Your task to perform on an android device: turn off priority inbox in the gmail app Image 0: 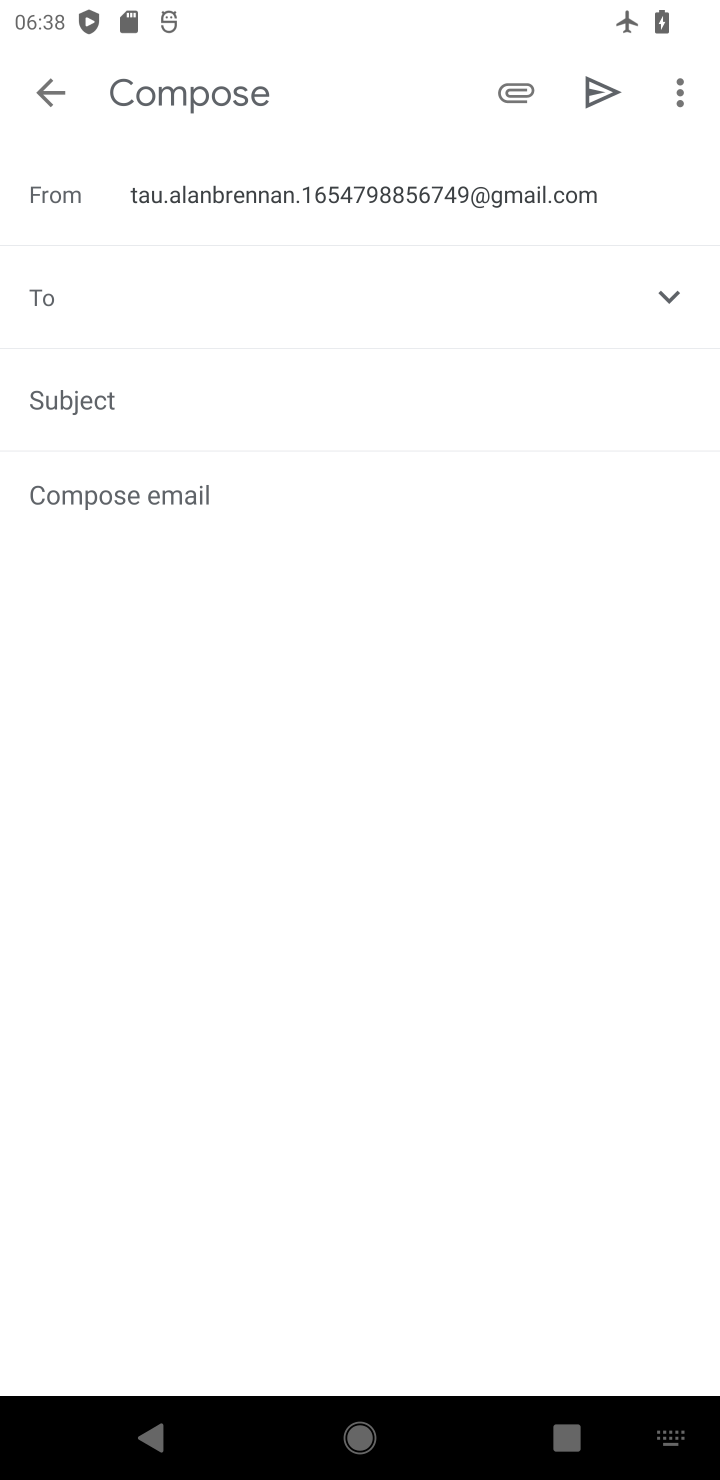
Step 0: click (52, 93)
Your task to perform on an android device: turn off priority inbox in the gmail app Image 1: 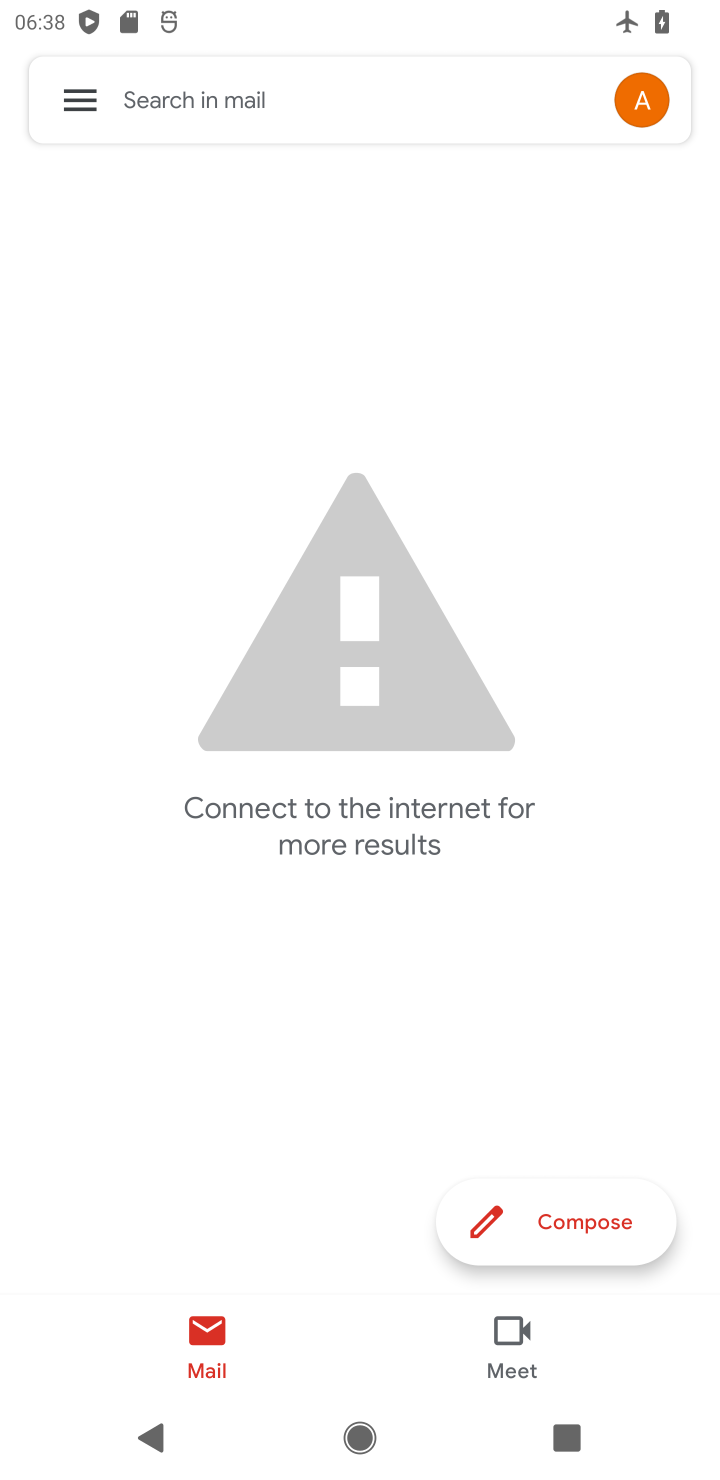
Step 1: press home button
Your task to perform on an android device: turn off priority inbox in the gmail app Image 2: 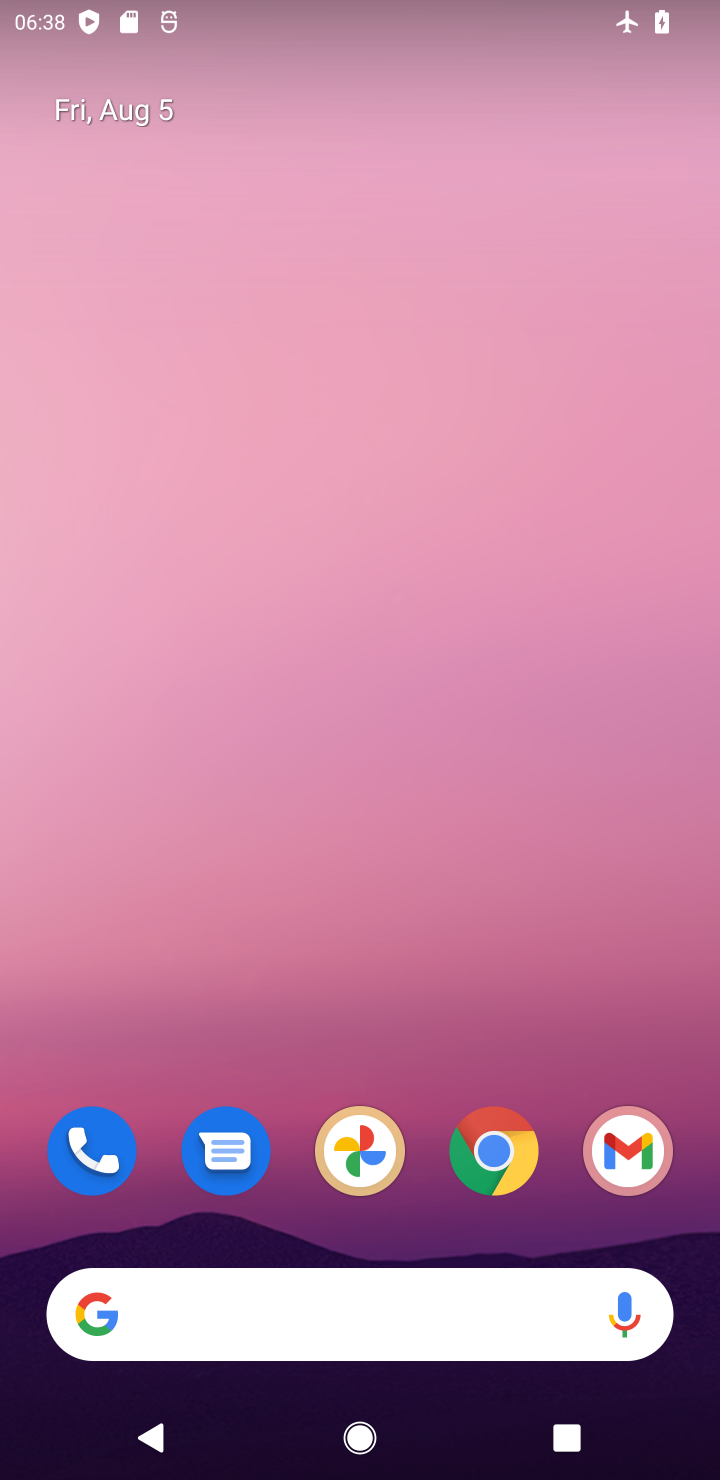
Step 2: drag from (338, 1237) to (223, 152)
Your task to perform on an android device: turn off priority inbox in the gmail app Image 3: 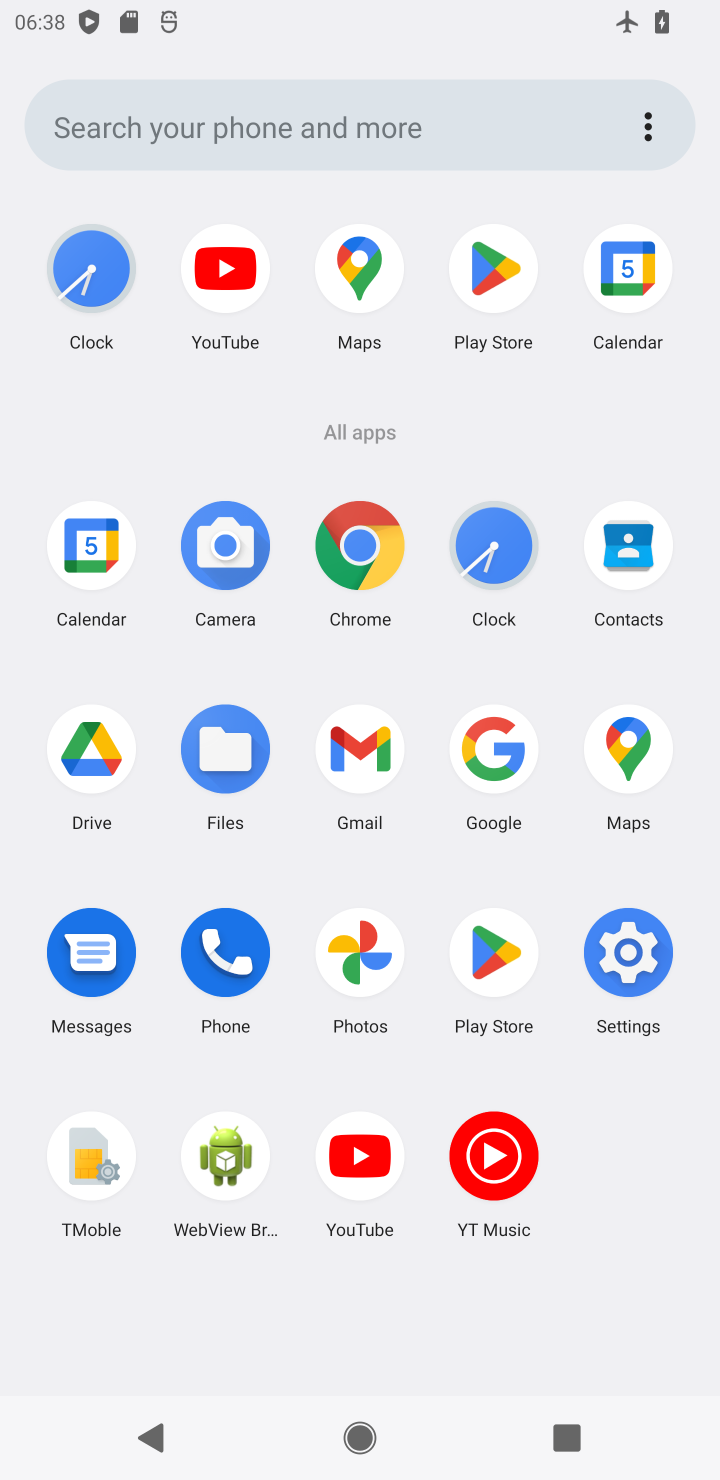
Step 3: click (391, 773)
Your task to perform on an android device: turn off priority inbox in the gmail app Image 4: 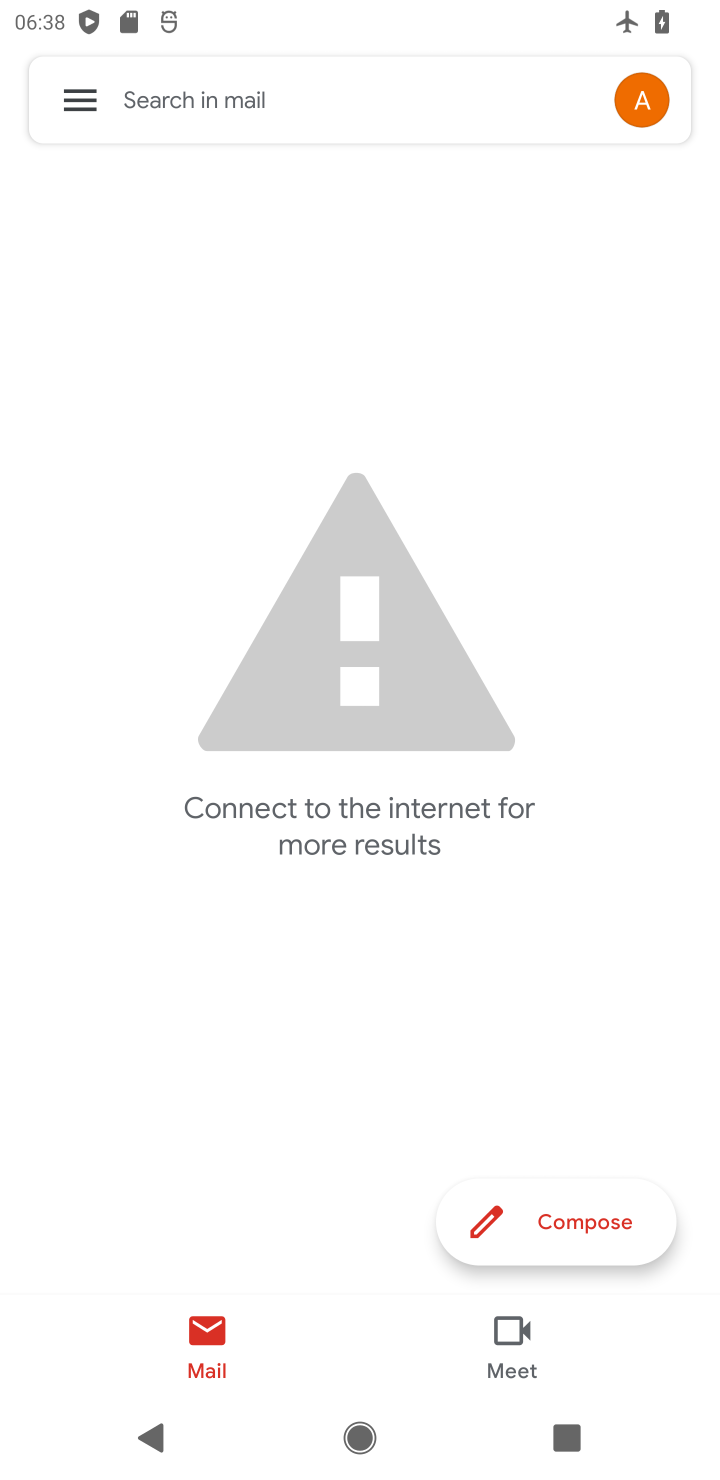
Step 4: click (84, 108)
Your task to perform on an android device: turn off priority inbox in the gmail app Image 5: 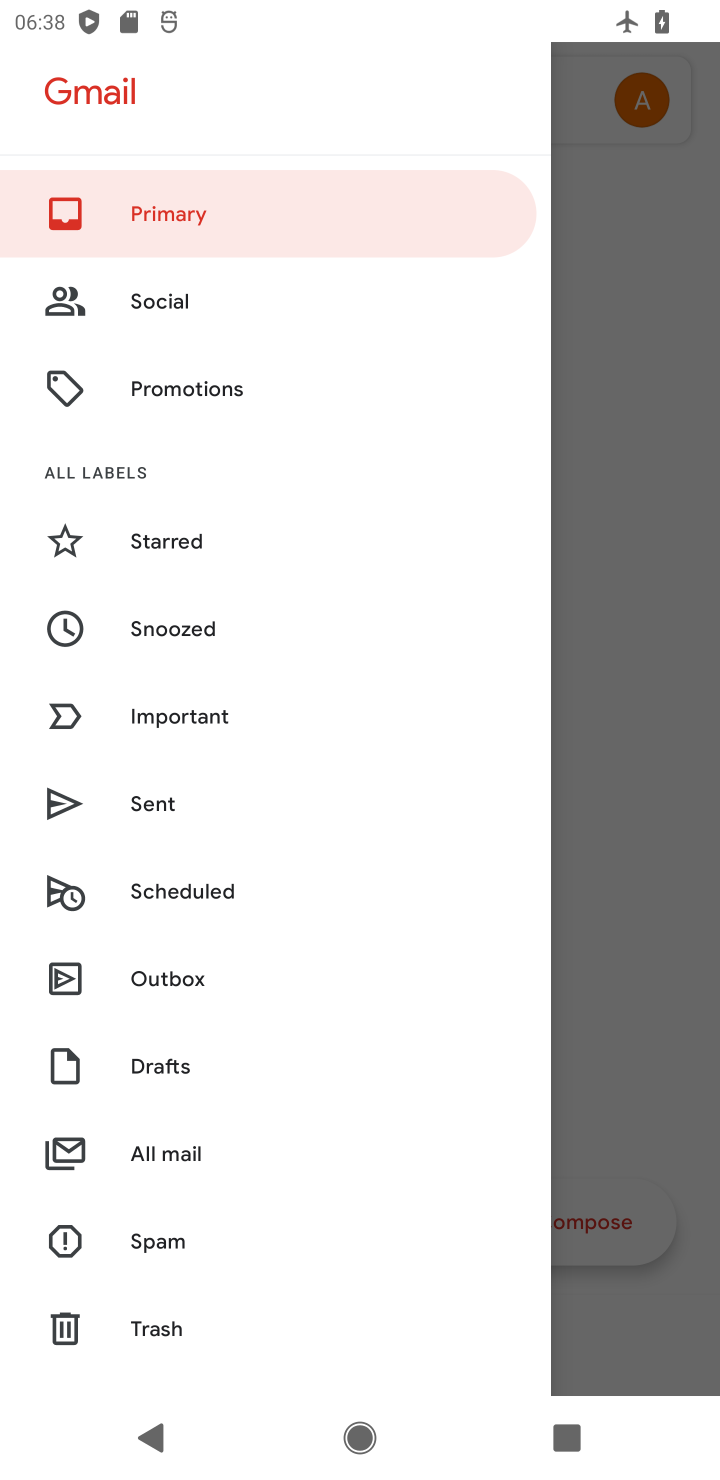
Step 5: drag from (247, 1168) to (252, 377)
Your task to perform on an android device: turn off priority inbox in the gmail app Image 6: 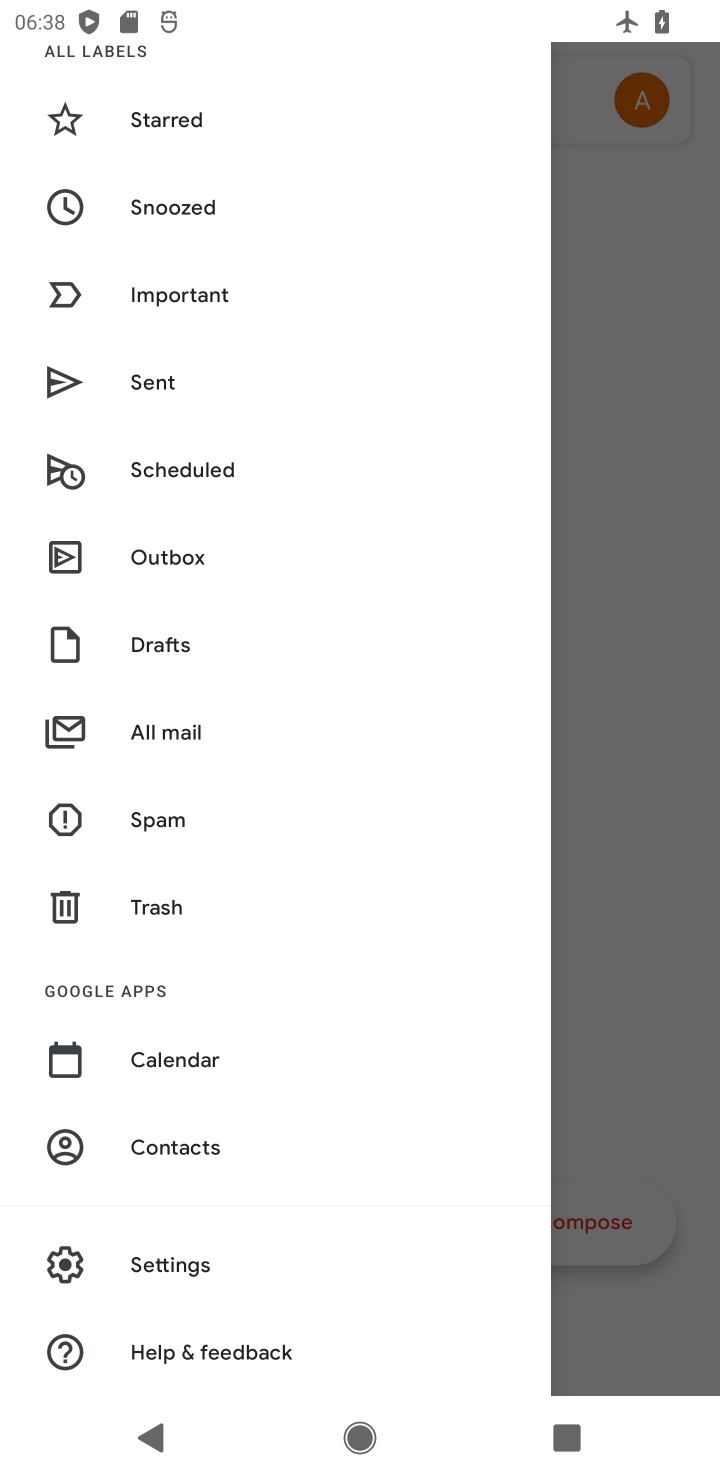
Step 6: click (133, 1227)
Your task to perform on an android device: turn off priority inbox in the gmail app Image 7: 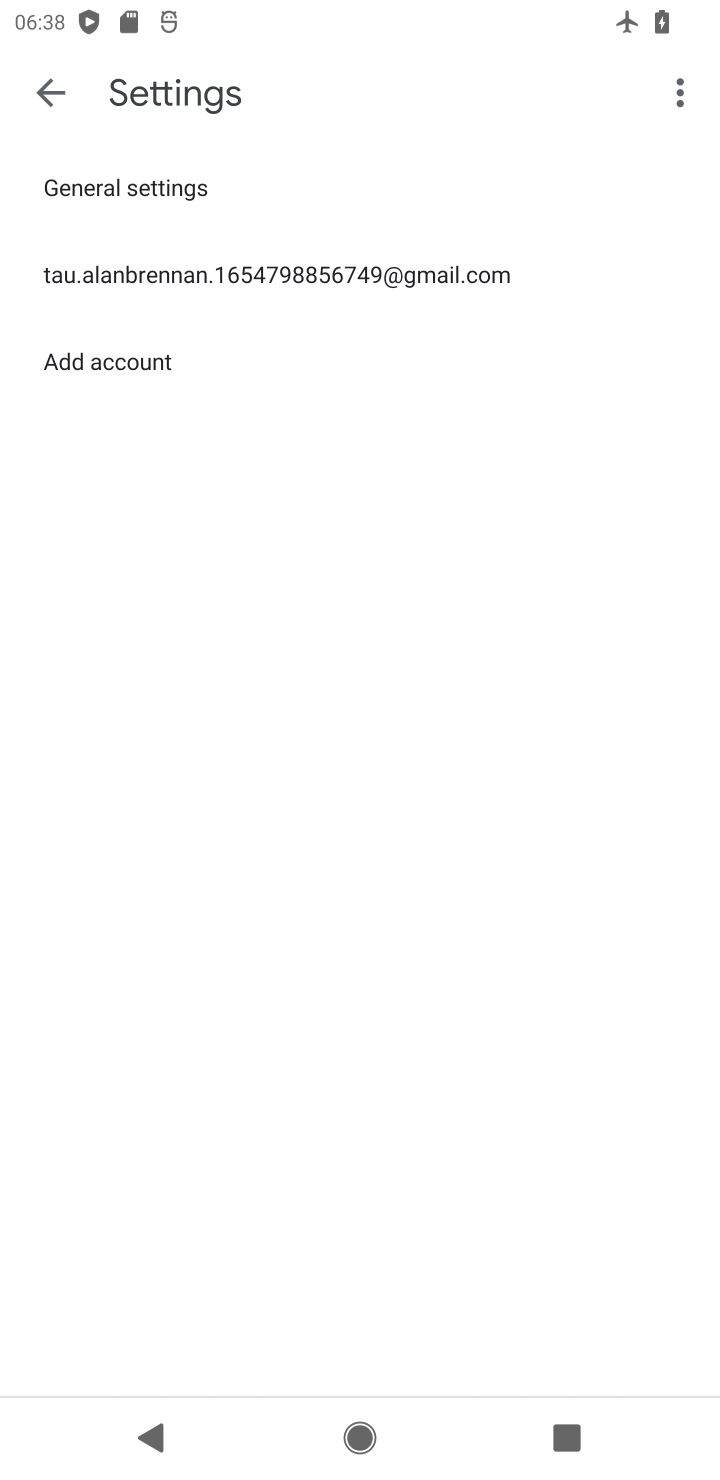
Step 7: click (76, 293)
Your task to perform on an android device: turn off priority inbox in the gmail app Image 8: 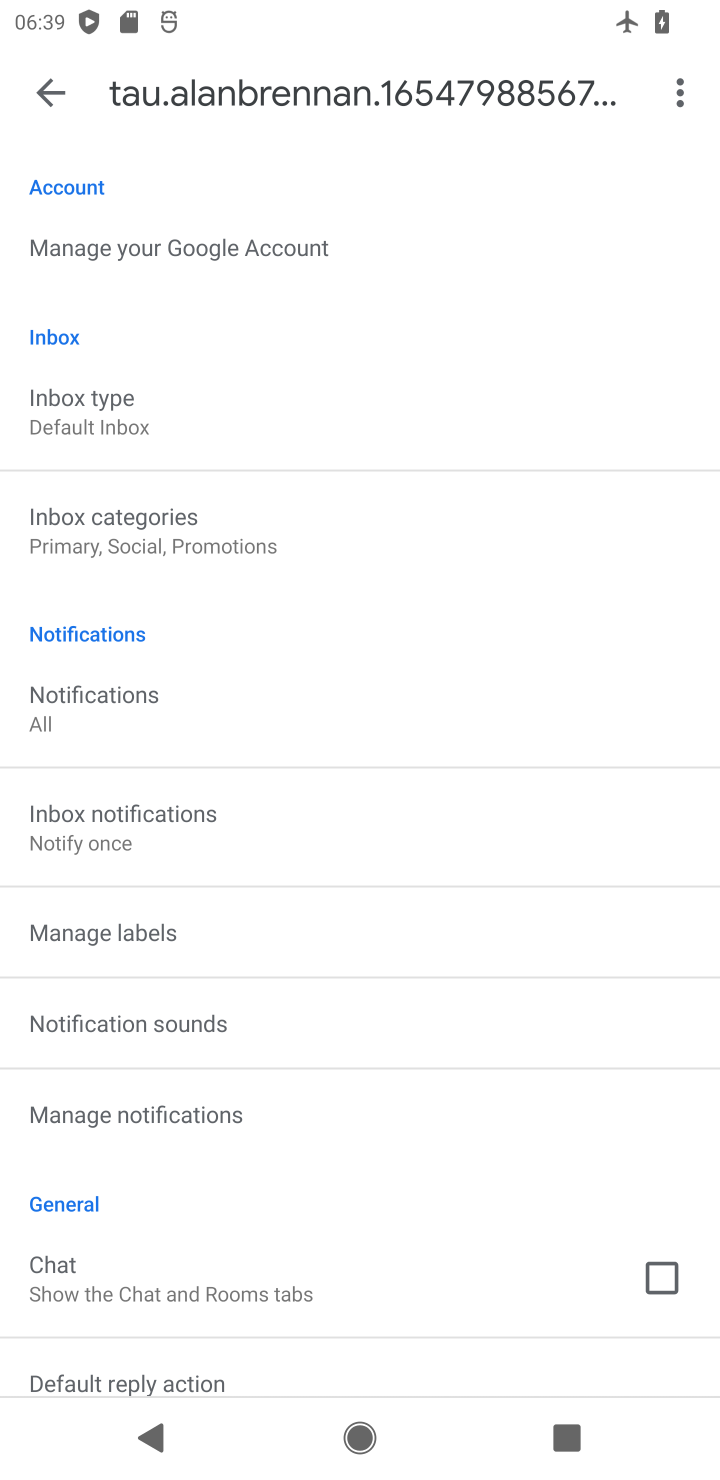
Step 8: click (159, 435)
Your task to perform on an android device: turn off priority inbox in the gmail app Image 9: 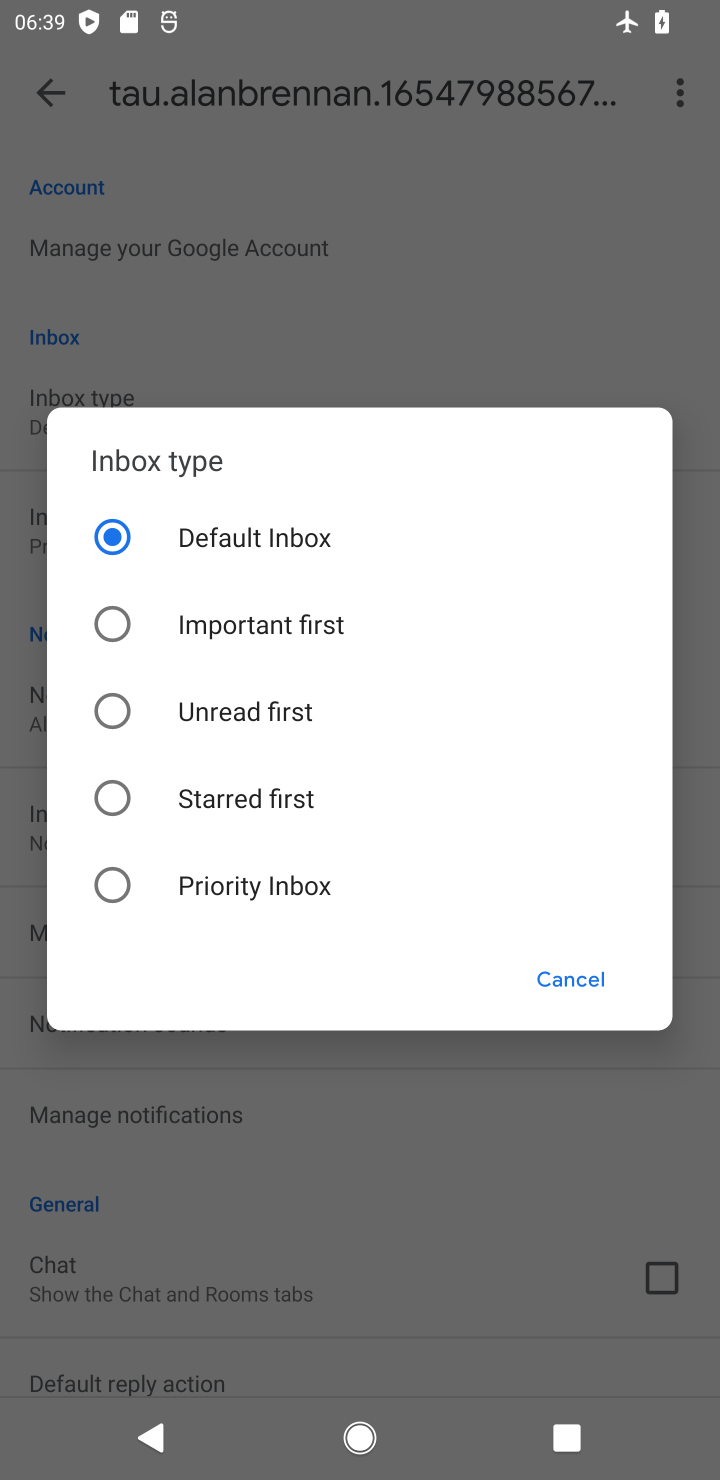
Step 9: task complete